Your task to perform on an android device: Open my contact list Image 0: 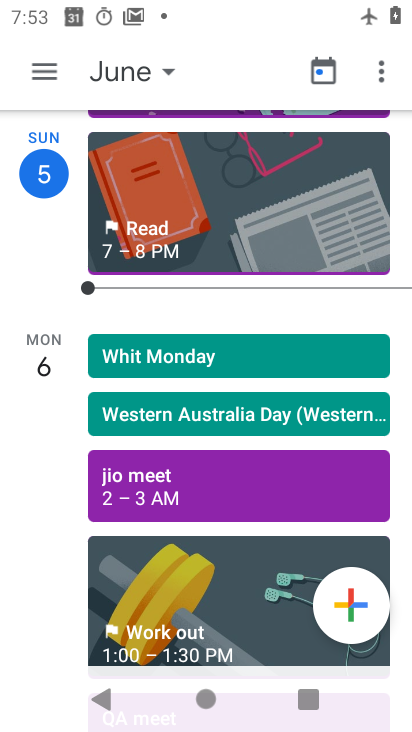
Step 0: press home button
Your task to perform on an android device: Open my contact list Image 1: 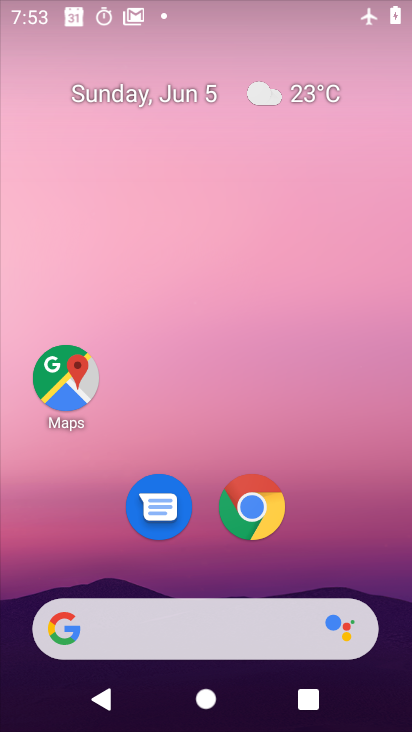
Step 1: drag from (250, 658) to (182, 198)
Your task to perform on an android device: Open my contact list Image 2: 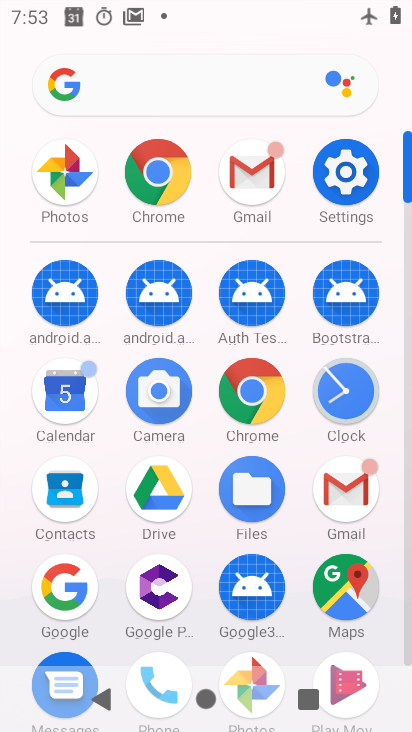
Step 2: click (165, 659)
Your task to perform on an android device: Open my contact list Image 3: 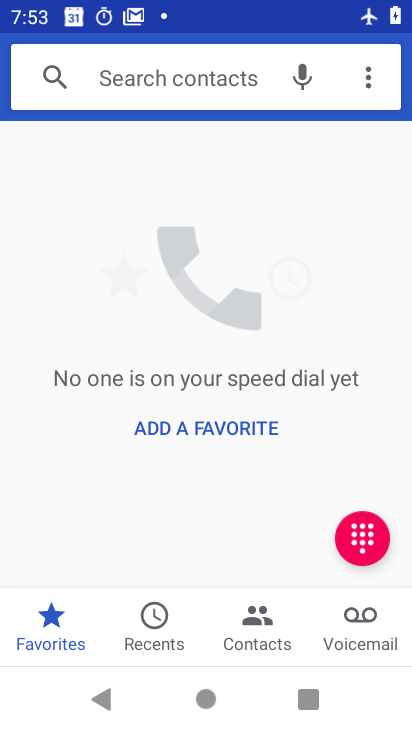
Step 3: click (275, 636)
Your task to perform on an android device: Open my contact list Image 4: 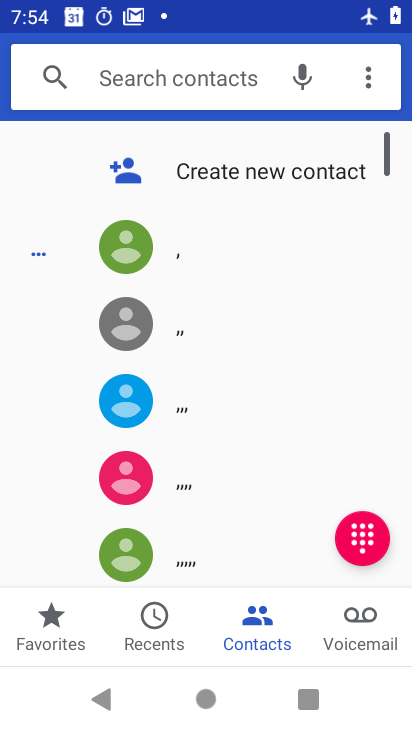
Step 4: task complete